Your task to perform on an android device: change keyboard looks Image 0: 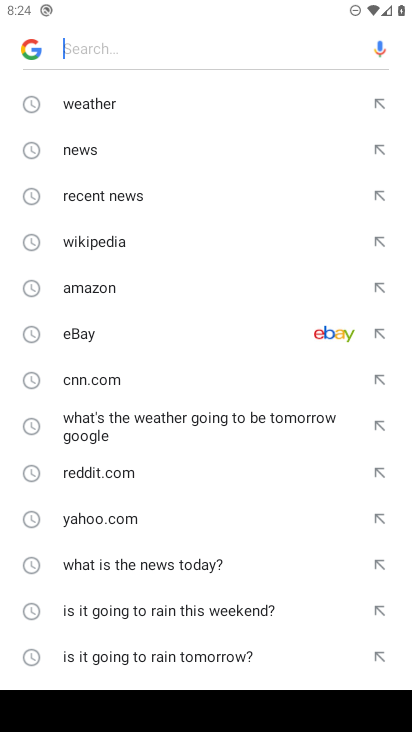
Step 0: press home button
Your task to perform on an android device: change keyboard looks Image 1: 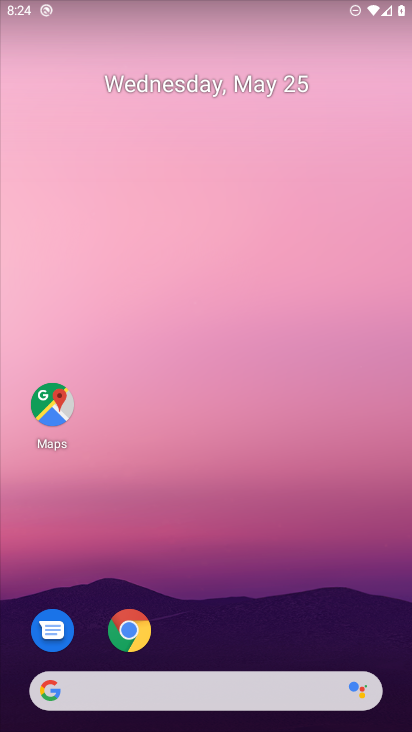
Step 1: drag from (167, 665) to (229, 350)
Your task to perform on an android device: change keyboard looks Image 2: 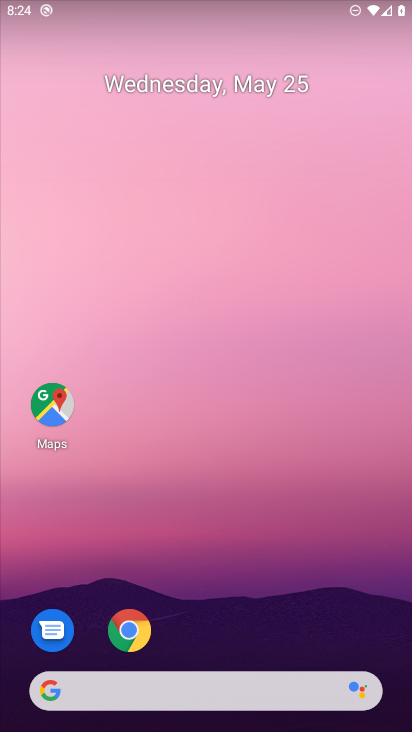
Step 2: drag from (175, 670) to (201, 315)
Your task to perform on an android device: change keyboard looks Image 3: 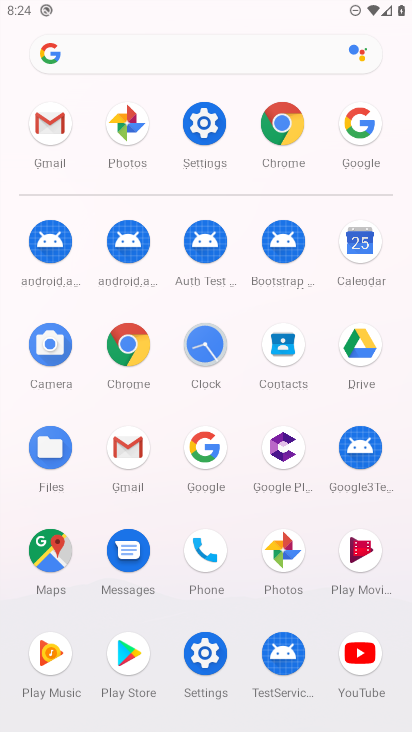
Step 3: click (199, 134)
Your task to perform on an android device: change keyboard looks Image 4: 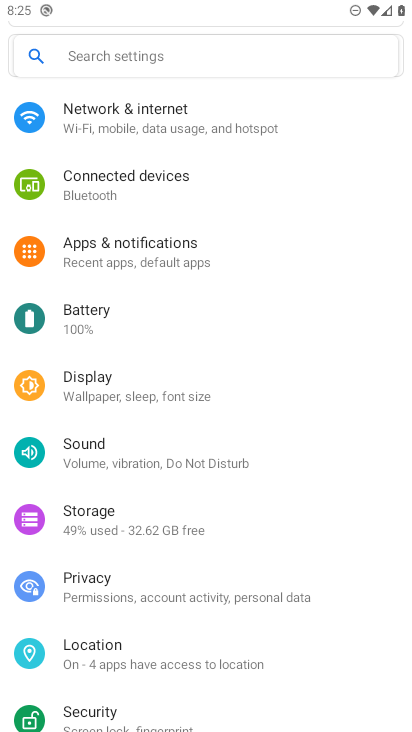
Step 4: drag from (76, 714) to (156, 393)
Your task to perform on an android device: change keyboard looks Image 5: 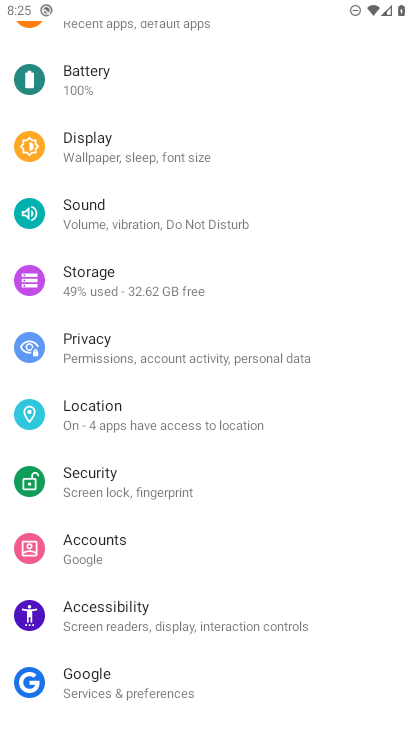
Step 5: drag from (110, 682) to (160, 354)
Your task to perform on an android device: change keyboard looks Image 6: 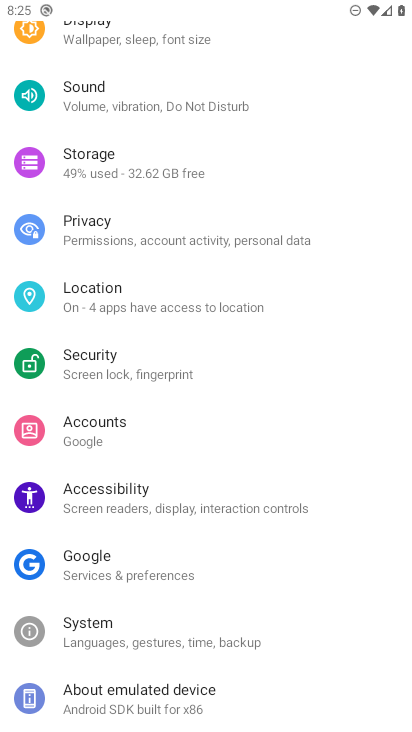
Step 6: click (91, 635)
Your task to perform on an android device: change keyboard looks Image 7: 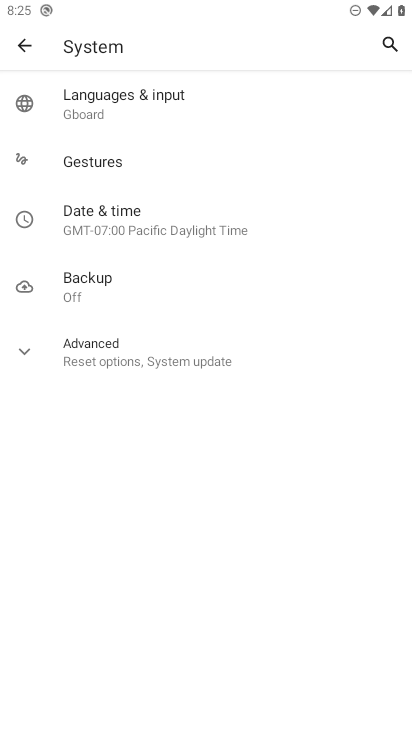
Step 7: click (118, 354)
Your task to perform on an android device: change keyboard looks Image 8: 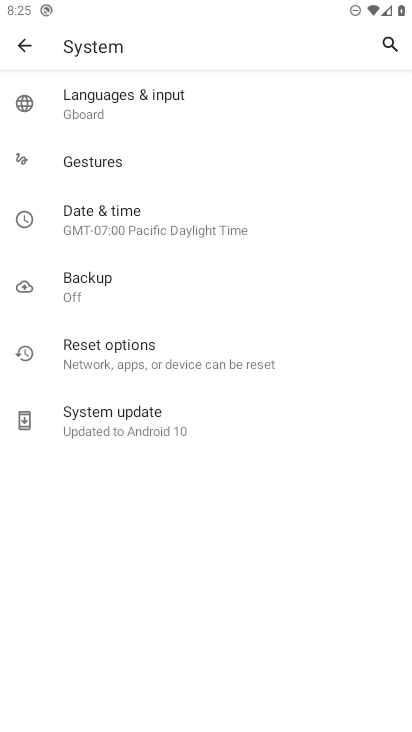
Step 8: click (94, 107)
Your task to perform on an android device: change keyboard looks Image 9: 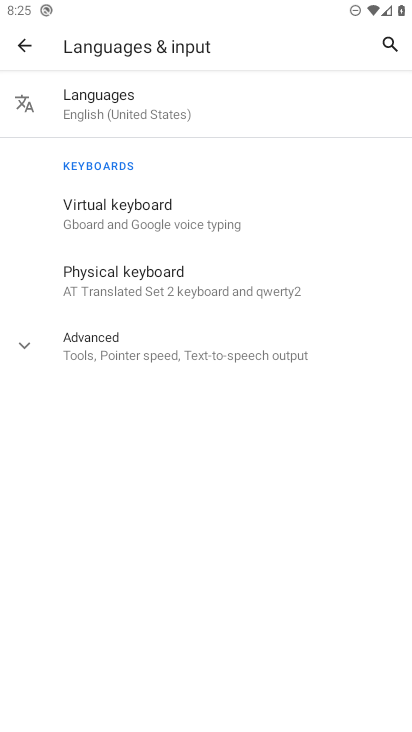
Step 9: click (72, 343)
Your task to perform on an android device: change keyboard looks Image 10: 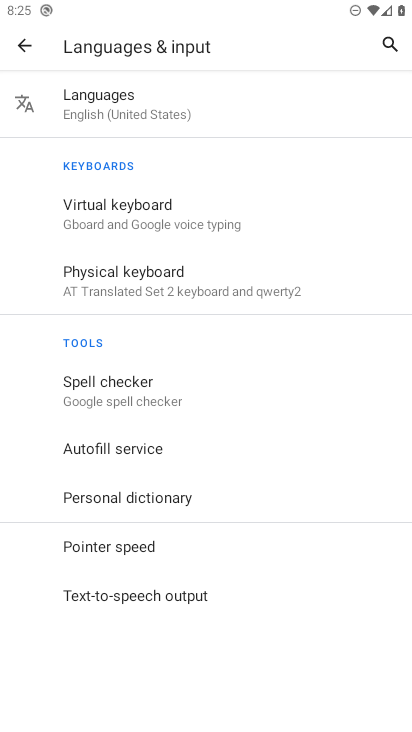
Step 10: click (121, 220)
Your task to perform on an android device: change keyboard looks Image 11: 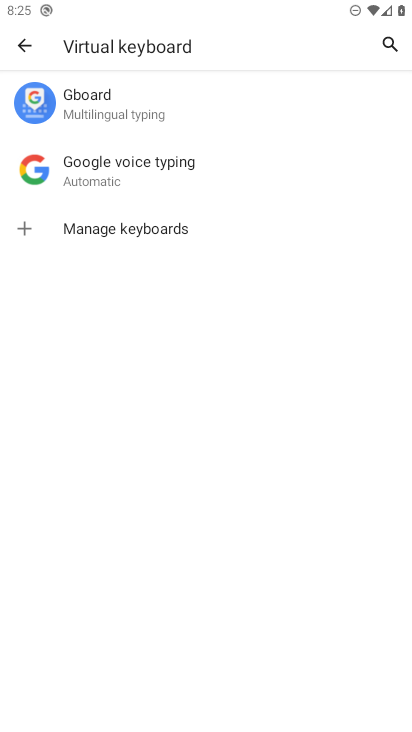
Step 11: click (105, 118)
Your task to perform on an android device: change keyboard looks Image 12: 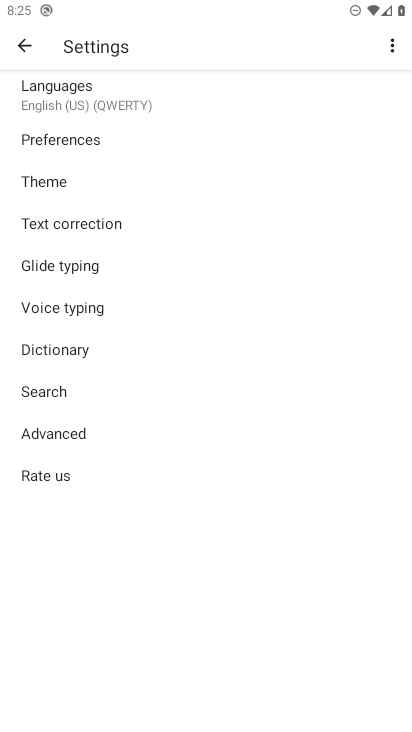
Step 12: click (57, 182)
Your task to perform on an android device: change keyboard looks Image 13: 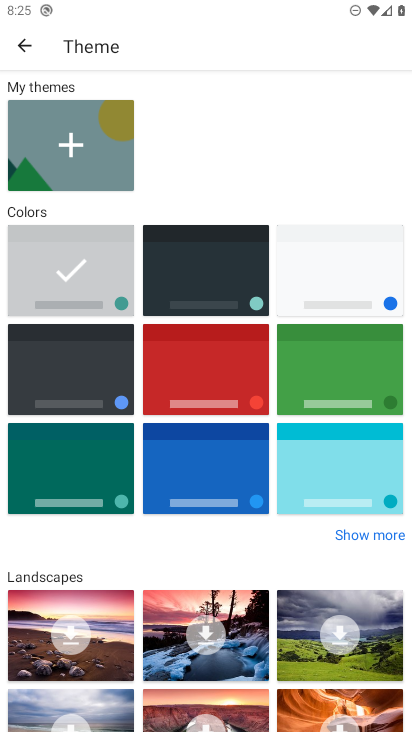
Step 13: click (239, 393)
Your task to perform on an android device: change keyboard looks Image 14: 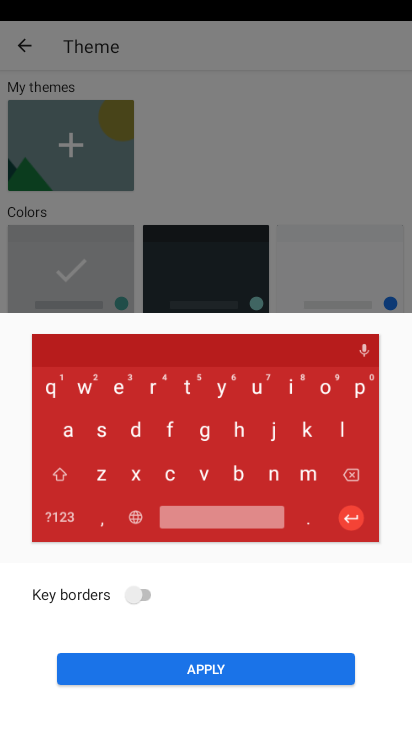
Step 14: click (172, 677)
Your task to perform on an android device: change keyboard looks Image 15: 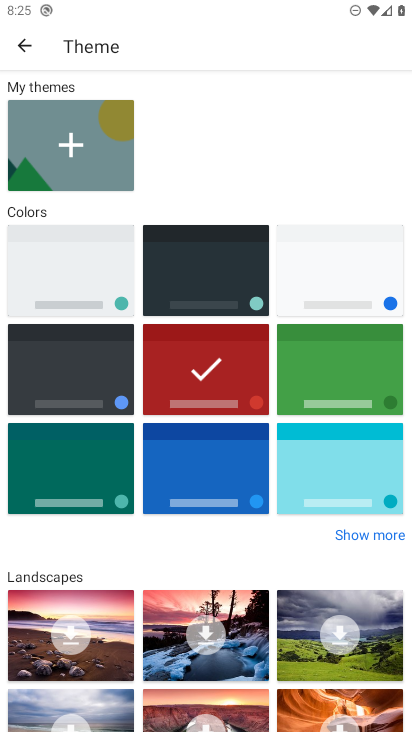
Step 15: task complete